Your task to perform on an android device: manage bookmarks in the chrome app Image 0: 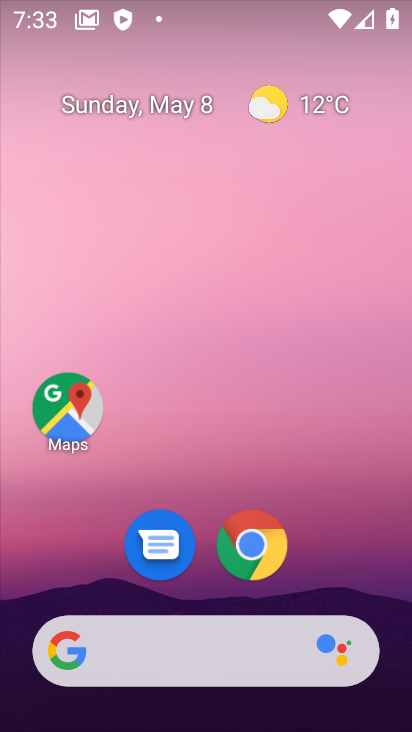
Step 0: click (261, 544)
Your task to perform on an android device: manage bookmarks in the chrome app Image 1: 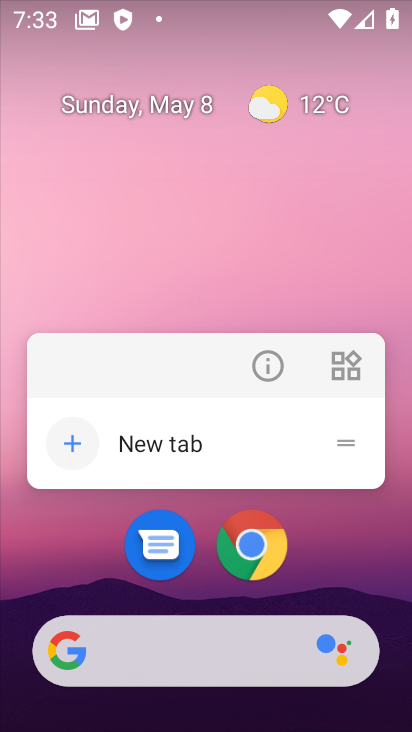
Step 1: click (200, 438)
Your task to perform on an android device: manage bookmarks in the chrome app Image 2: 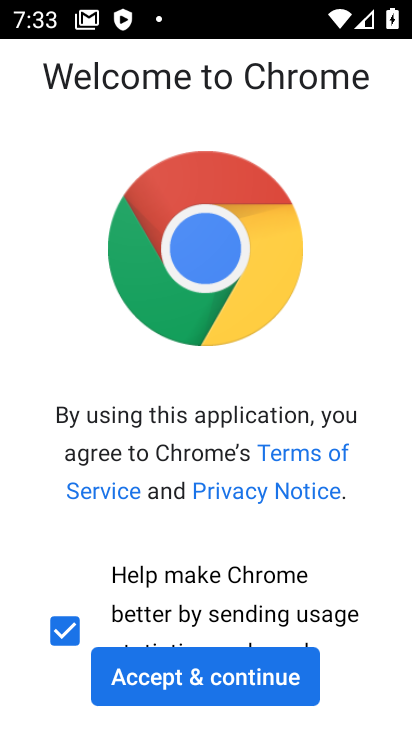
Step 2: click (224, 679)
Your task to perform on an android device: manage bookmarks in the chrome app Image 3: 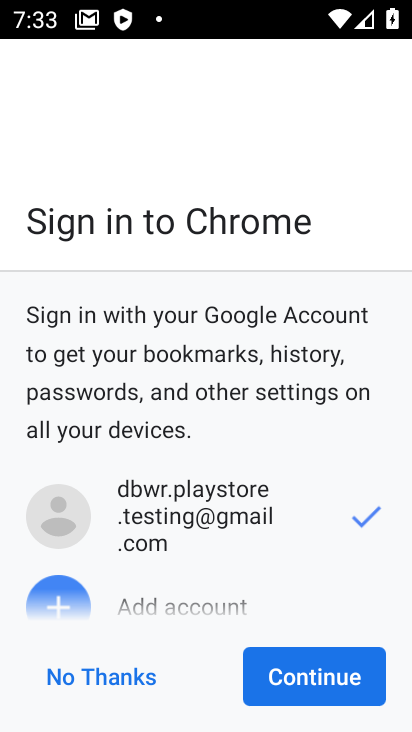
Step 3: click (282, 699)
Your task to perform on an android device: manage bookmarks in the chrome app Image 4: 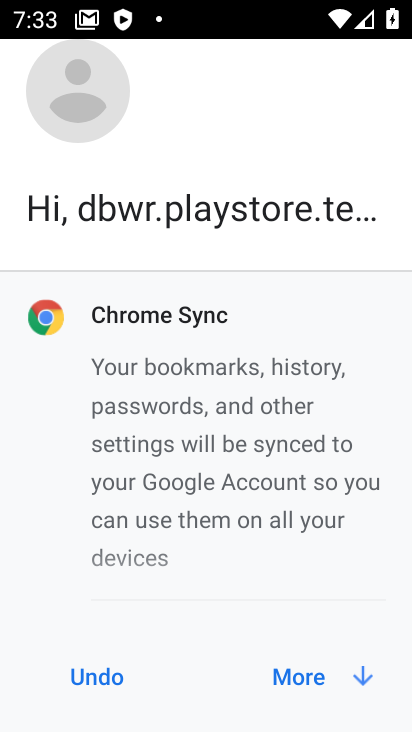
Step 4: click (323, 684)
Your task to perform on an android device: manage bookmarks in the chrome app Image 5: 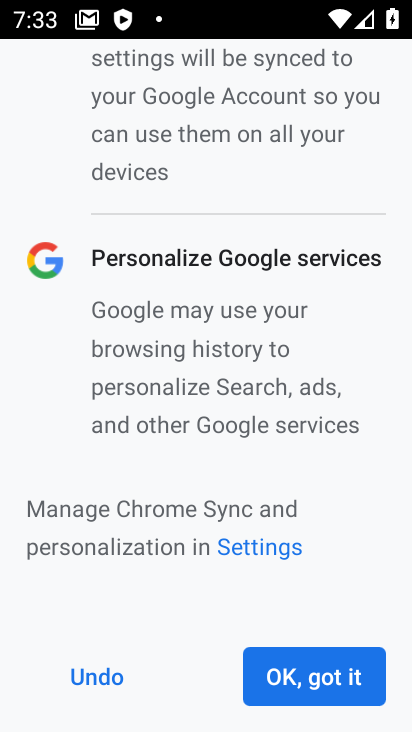
Step 5: click (323, 684)
Your task to perform on an android device: manage bookmarks in the chrome app Image 6: 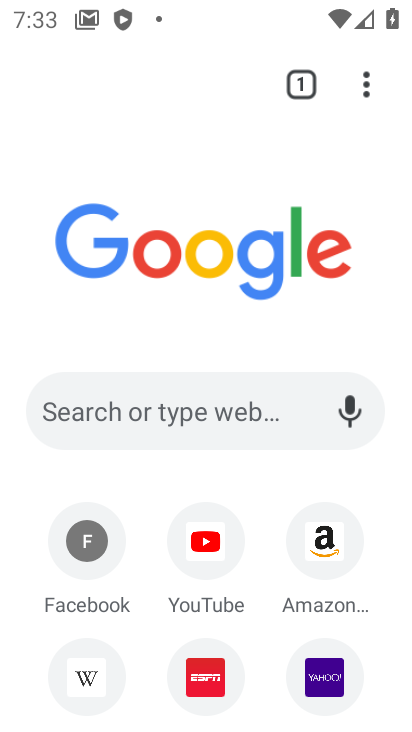
Step 6: click (362, 72)
Your task to perform on an android device: manage bookmarks in the chrome app Image 7: 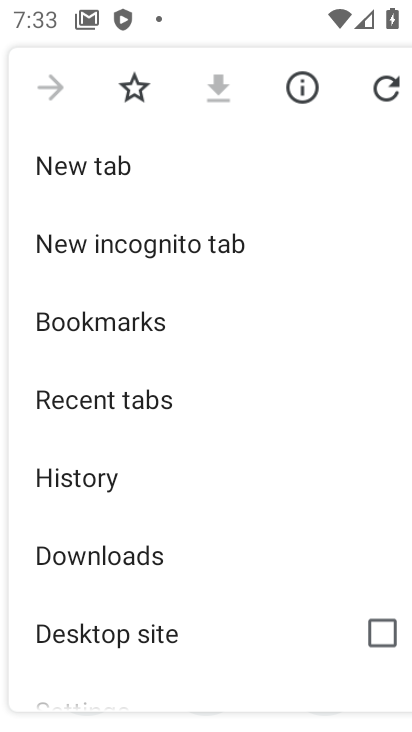
Step 7: click (113, 341)
Your task to perform on an android device: manage bookmarks in the chrome app Image 8: 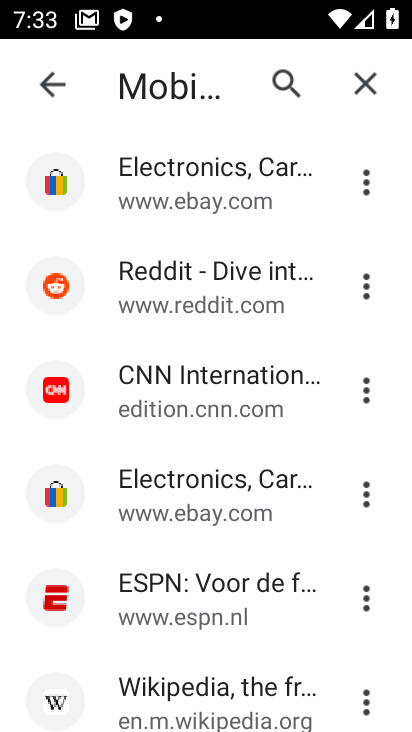
Step 8: click (379, 279)
Your task to perform on an android device: manage bookmarks in the chrome app Image 9: 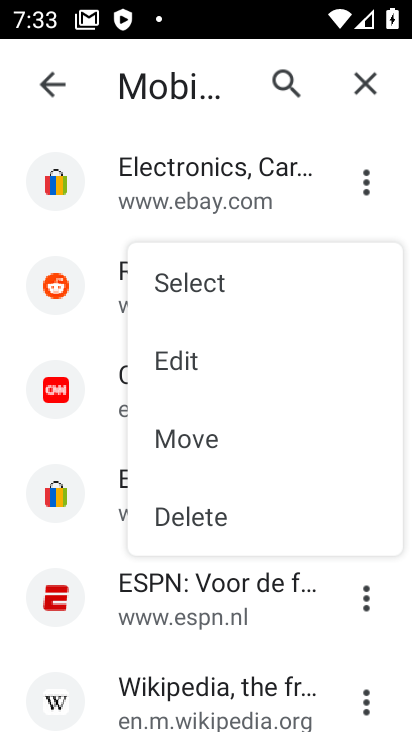
Step 9: click (187, 498)
Your task to perform on an android device: manage bookmarks in the chrome app Image 10: 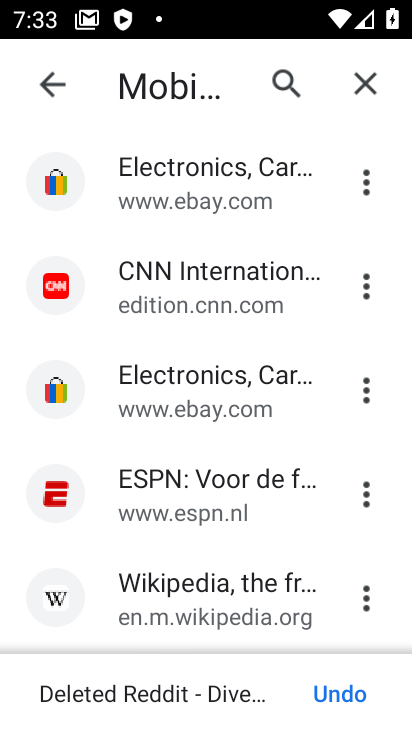
Step 10: task complete